Your task to perform on an android device: toggle wifi Image 0: 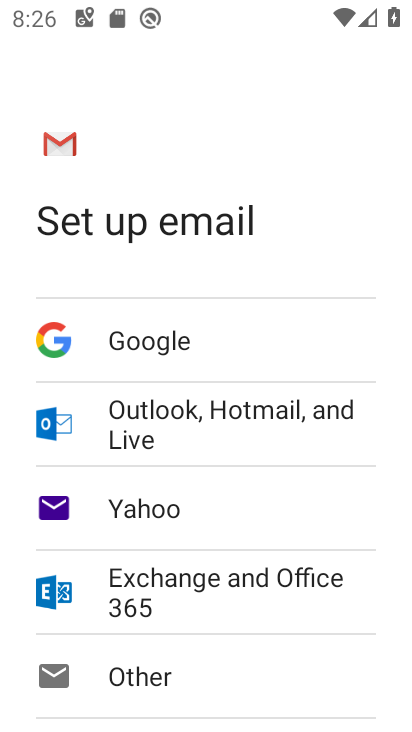
Step 0: press home button
Your task to perform on an android device: toggle wifi Image 1: 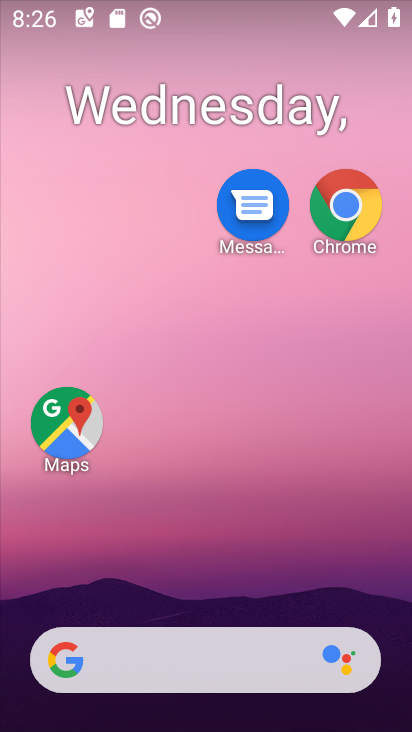
Step 1: drag from (281, 447) to (355, 103)
Your task to perform on an android device: toggle wifi Image 2: 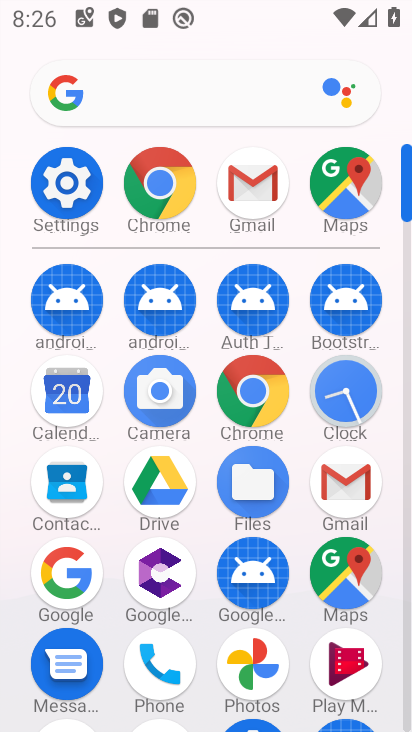
Step 2: click (54, 173)
Your task to perform on an android device: toggle wifi Image 3: 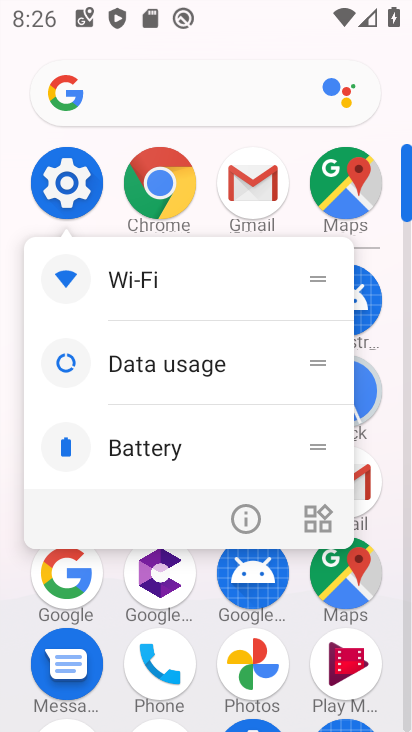
Step 3: click (240, 527)
Your task to perform on an android device: toggle wifi Image 4: 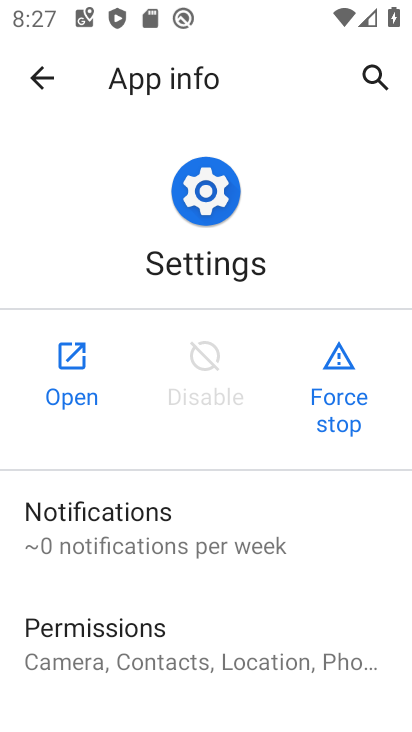
Step 4: click (66, 370)
Your task to perform on an android device: toggle wifi Image 5: 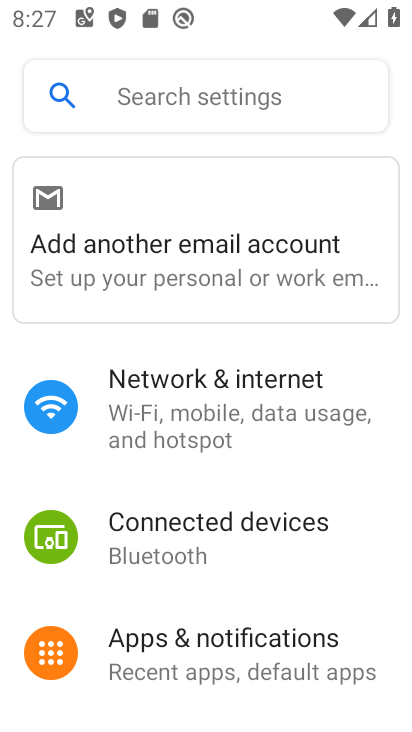
Step 5: click (236, 370)
Your task to perform on an android device: toggle wifi Image 6: 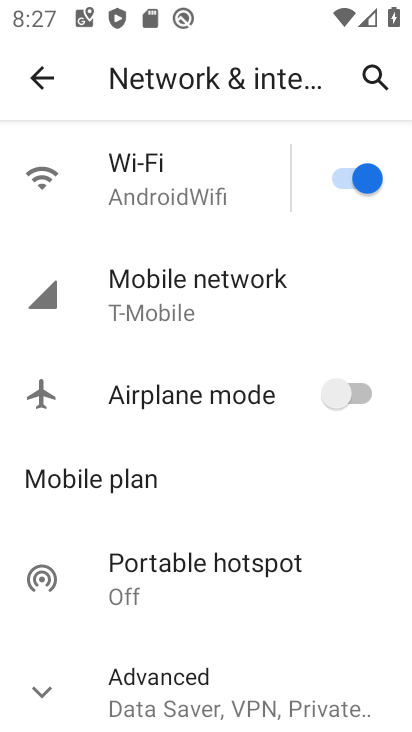
Step 6: click (340, 168)
Your task to perform on an android device: toggle wifi Image 7: 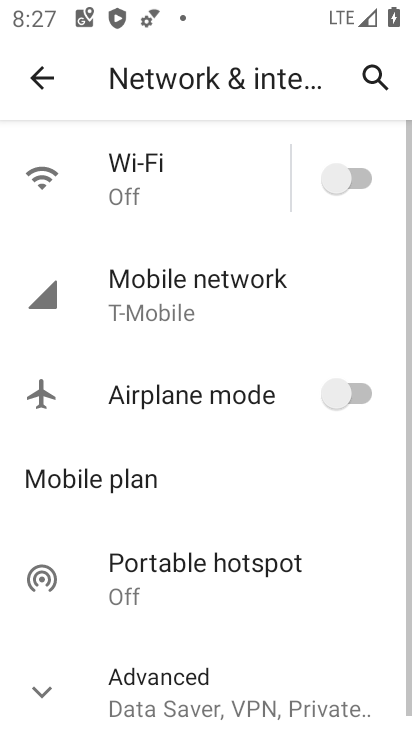
Step 7: task complete